Your task to perform on an android device: Open Maps and search for coffee Image 0: 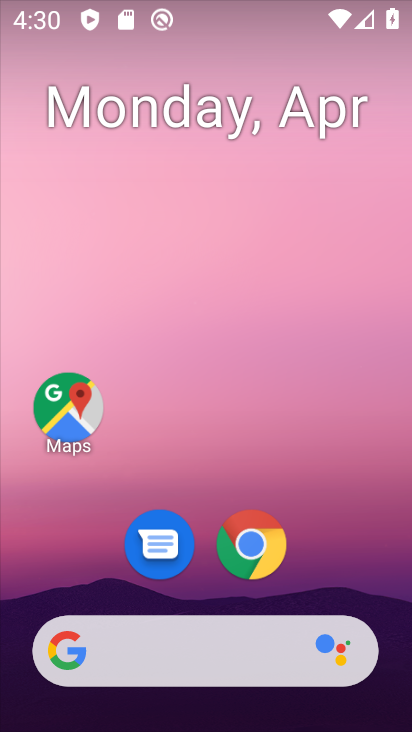
Step 0: drag from (367, 568) to (363, 290)
Your task to perform on an android device: Open Maps and search for coffee Image 1: 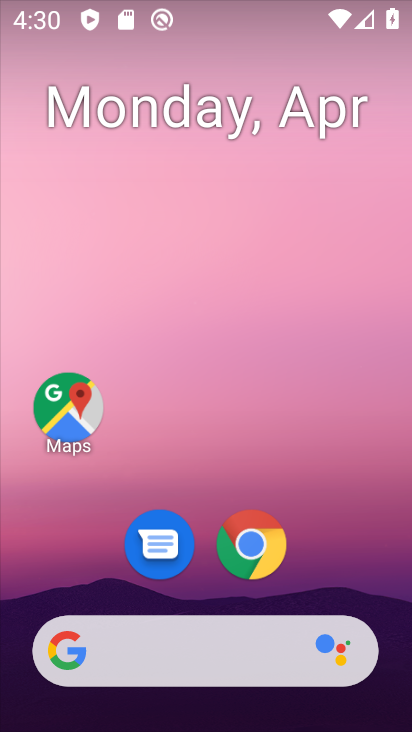
Step 1: drag from (327, 564) to (313, 208)
Your task to perform on an android device: Open Maps and search for coffee Image 2: 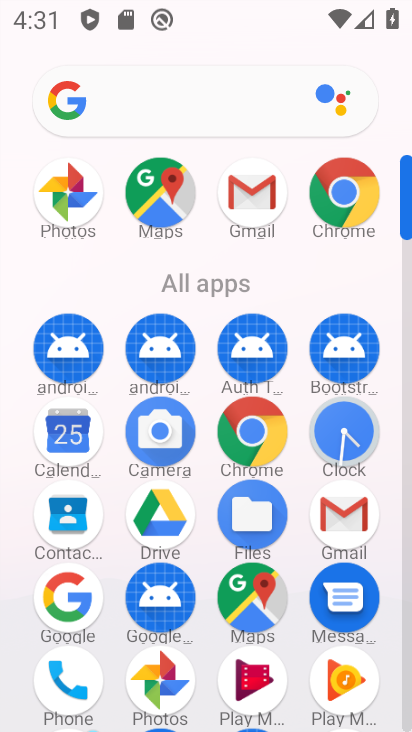
Step 2: click (175, 206)
Your task to perform on an android device: Open Maps and search for coffee Image 3: 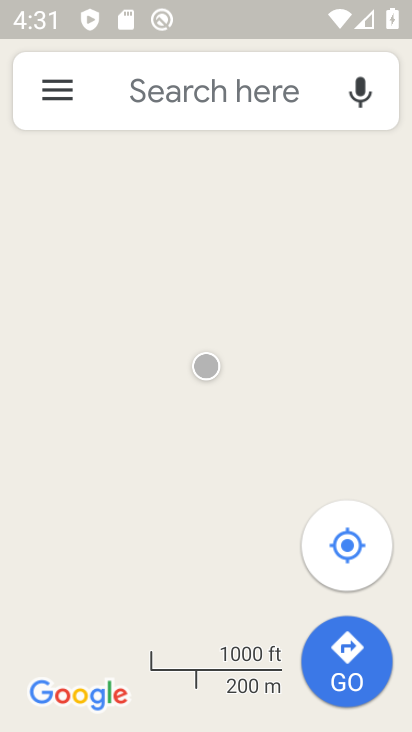
Step 3: click (218, 113)
Your task to perform on an android device: Open Maps and search for coffee Image 4: 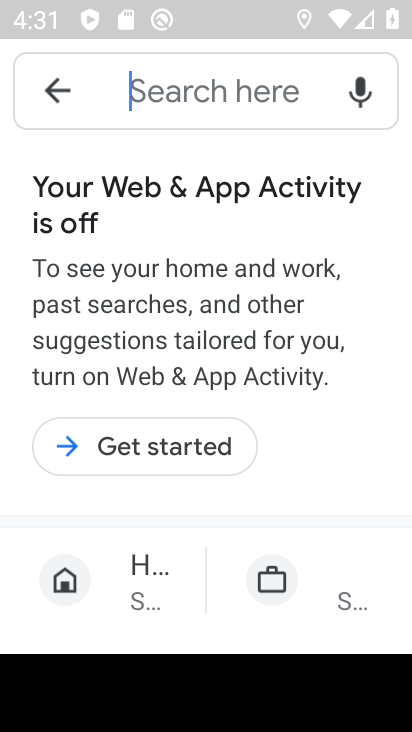
Step 4: type "coffee"
Your task to perform on an android device: Open Maps and search for coffee Image 5: 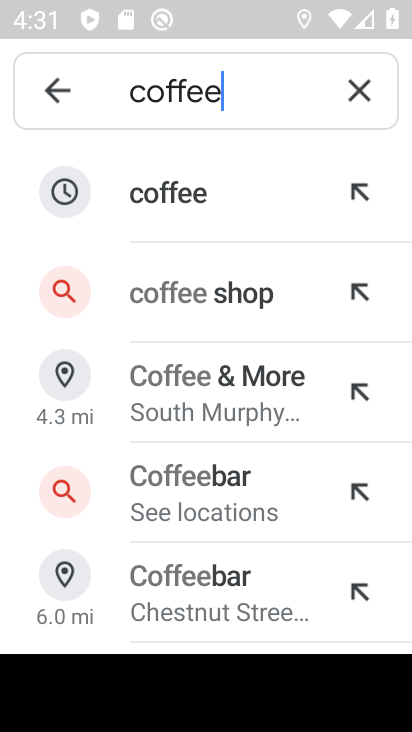
Step 5: click (264, 230)
Your task to perform on an android device: Open Maps and search for coffee Image 6: 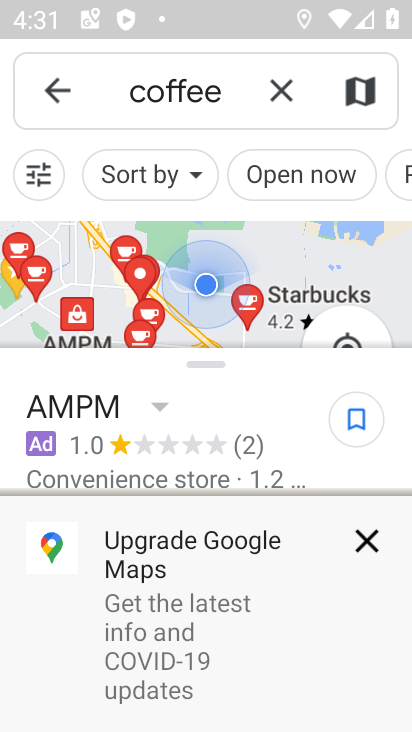
Step 6: task complete